Your task to perform on an android device: turn off data saver in the chrome app Image 0: 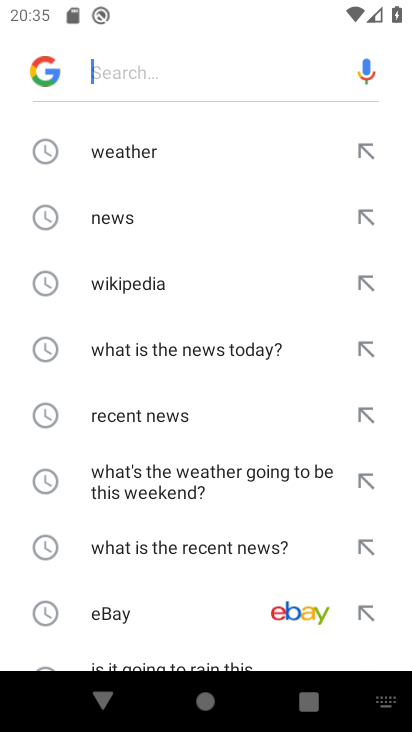
Step 0: press home button
Your task to perform on an android device: turn off data saver in the chrome app Image 1: 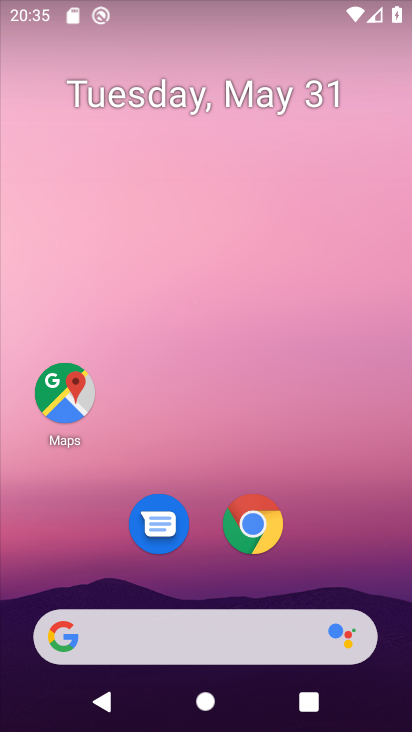
Step 1: click (253, 531)
Your task to perform on an android device: turn off data saver in the chrome app Image 2: 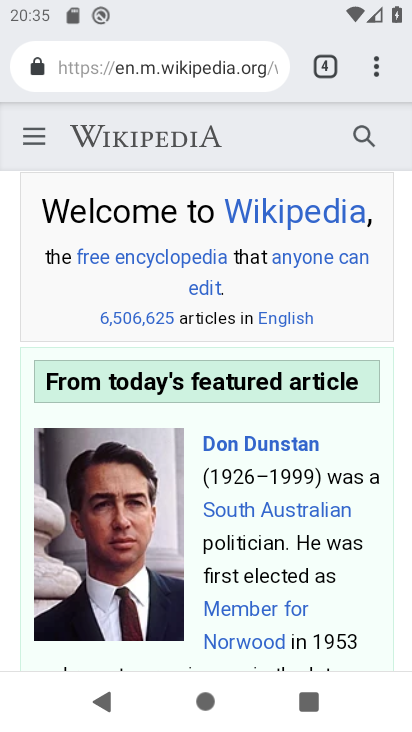
Step 2: click (373, 66)
Your task to perform on an android device: turn off data saver in the chrome app Image 3: 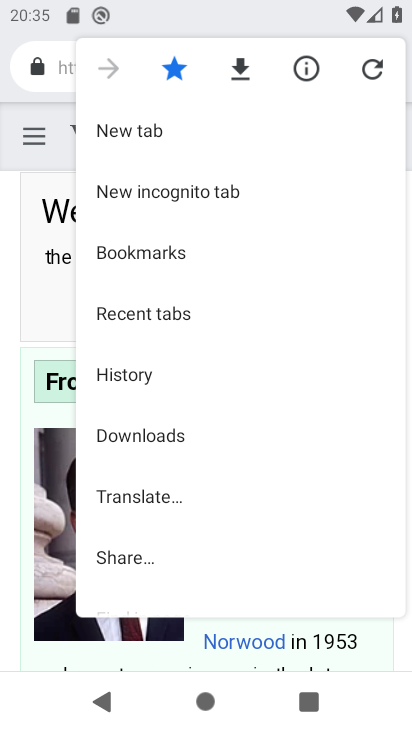
Step 3: drag from (279, 444) to (308, 143)
Your task to perform on an android device: turn off data saver in the chrome app Image 4: 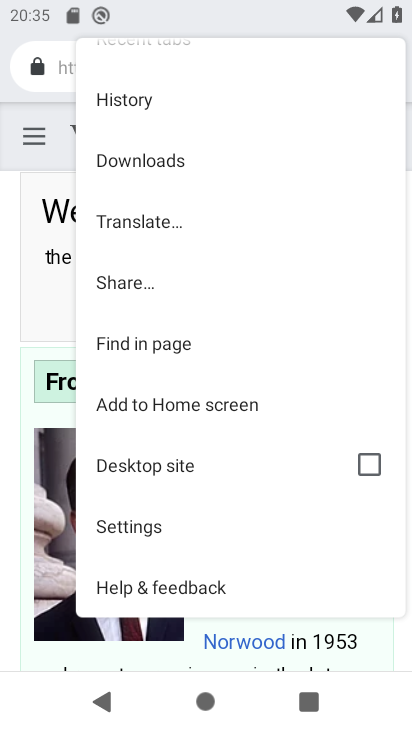
Step 4: click (206, 525)
Your task to perform on an android device: turn off data saver in the chrome app Image 5: 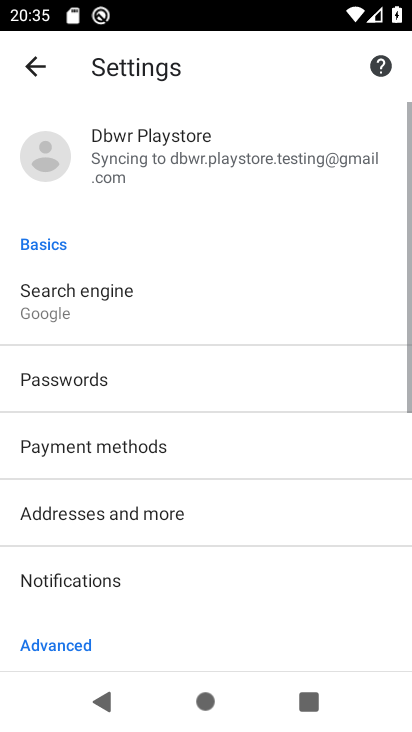
Step 5: drag from (211, 594) to (259, 49)
Your task to perform on an android device: turn off data saver in the chrome app Image 6: 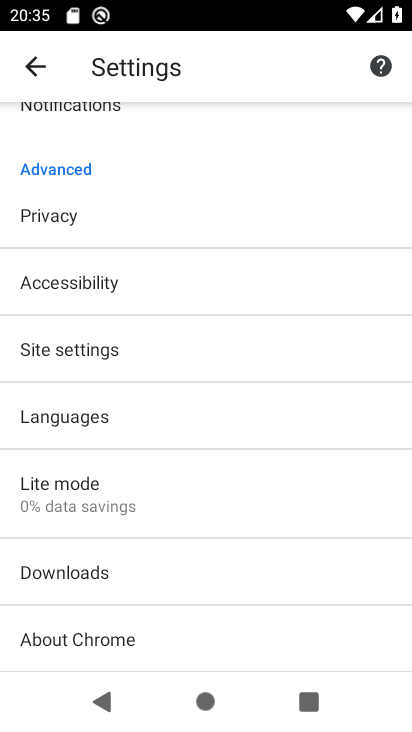
Step 6: click (209, 496)
Your task to perform on an android device: turn off data saver in the chrome app Image 7: 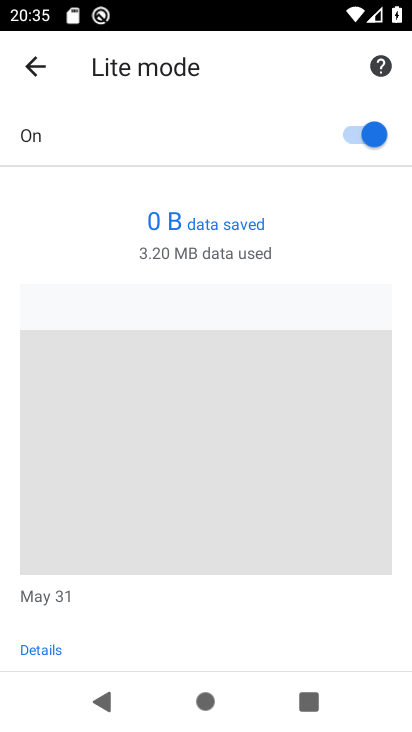
Step 7: click (351, 127)
Your task to perform on an android device: turn off data saver in the chrome app Image 8: 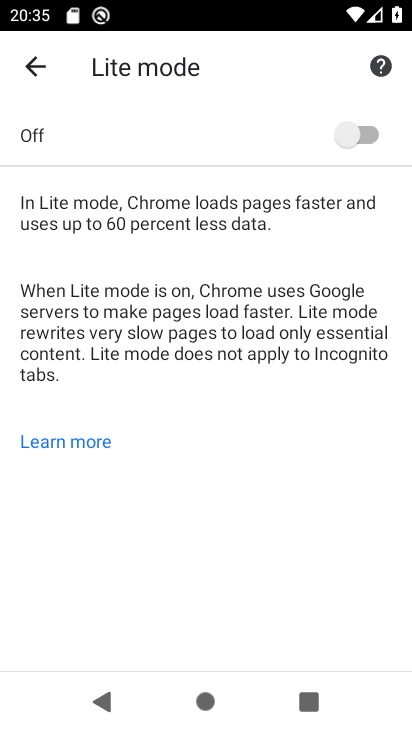
Step 8: task complete